Your task to perform on an android device: move a message to another label in the gmail app Image 0: 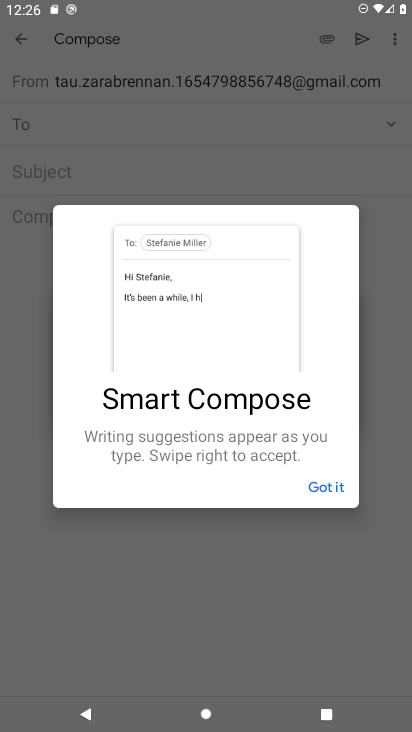
Step 0: press home button
Your task to perform on an android device: move a message to another label in the gmail app Image 1: 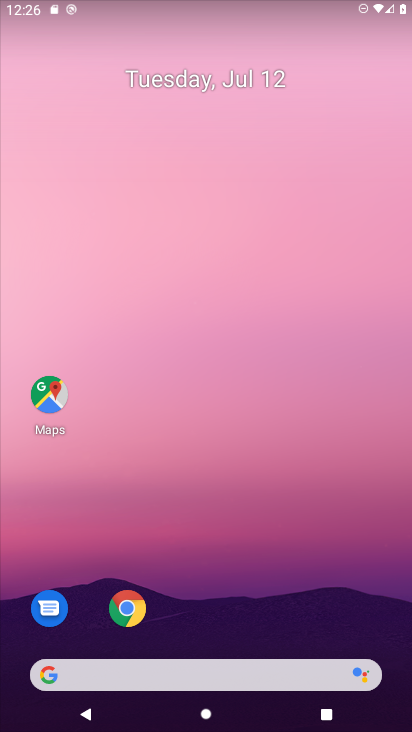
Step 1: drag from (215, 619) to (195, 134)
Your task to perform on an android device: move a message to another label in the gmail app Image 2: 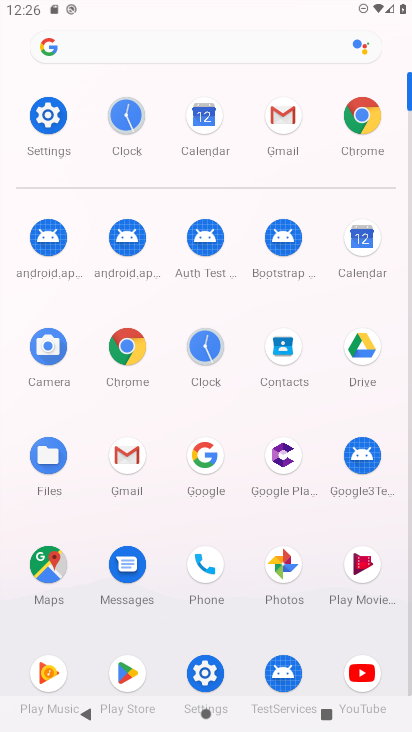
Step 2: click (137, 461)
Your task to perform on an android device: move a message to another label in the gmail app Image 3: 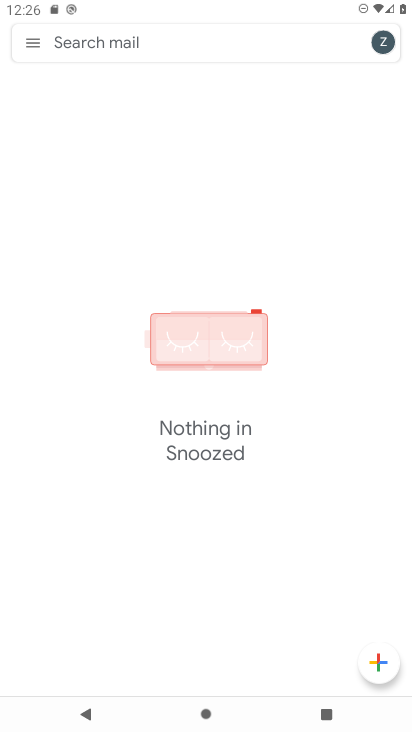
Step 3: click (26, 48)
Your task to perform on an android device: move a message to another label in the gmail app Image 4: 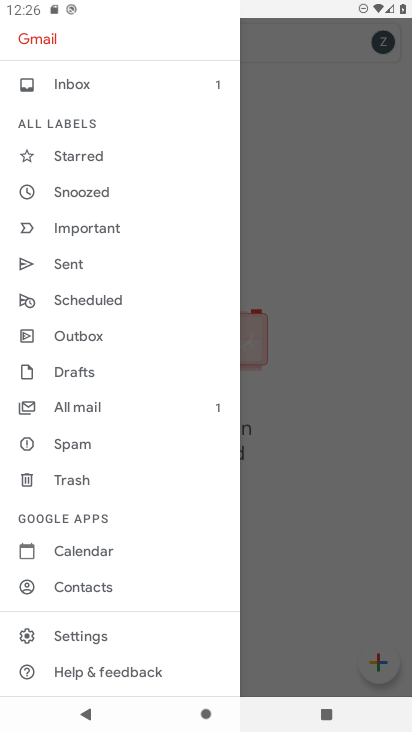
Step 4: click (71, 92)
Your task to perform on an android device: move a message to another label in the gmail app Image 5: 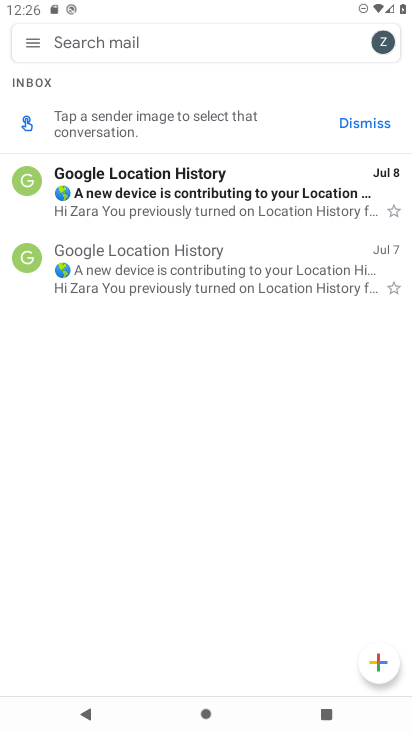
Step 5: click (206, 184)
Your task to perform on an android device: move a message to another label in the gmail app Image 6: 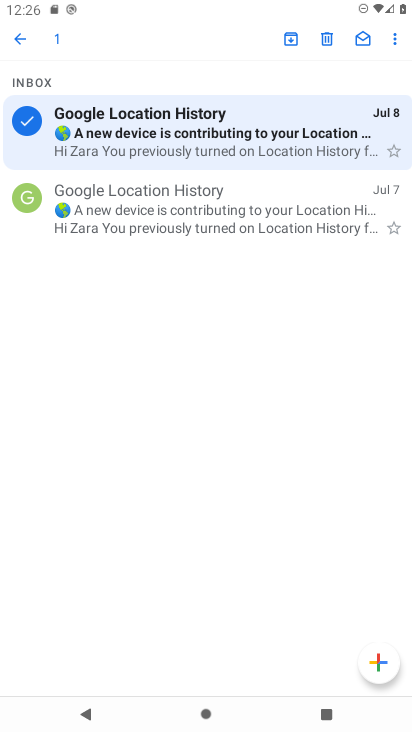
Step 6: click (393, 38)
Your task to perform on an android device: move a message to another label in the gmail app Image 7: 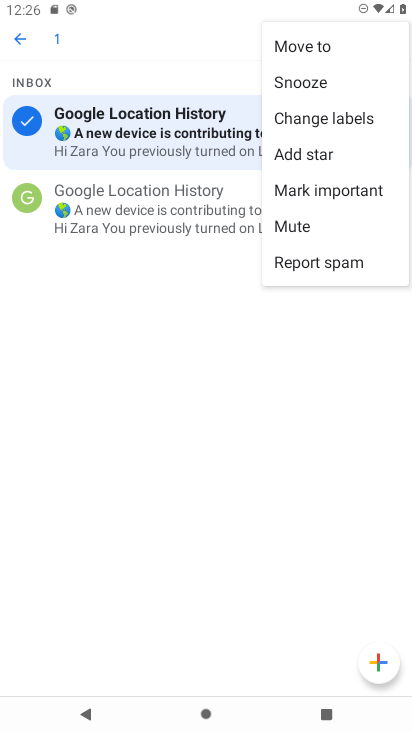
Step 7: click (317, 121)
Your task to perform on an android device: move a message to another label in the gmail app Image 8: 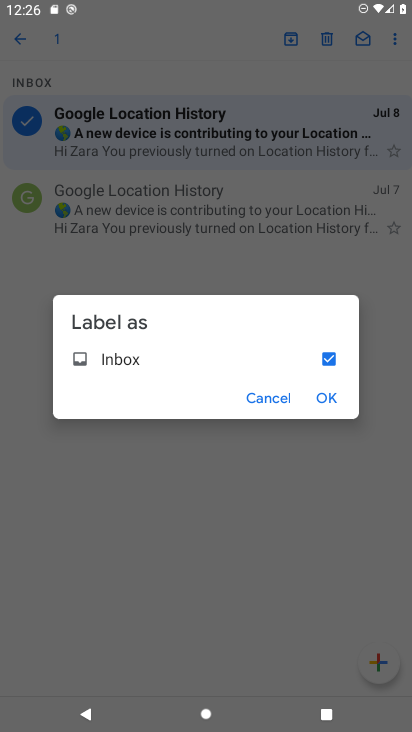
Step 8: click (329, 361)
Your task to perform on an android device: move a message to another label in the gmail app Image 9: 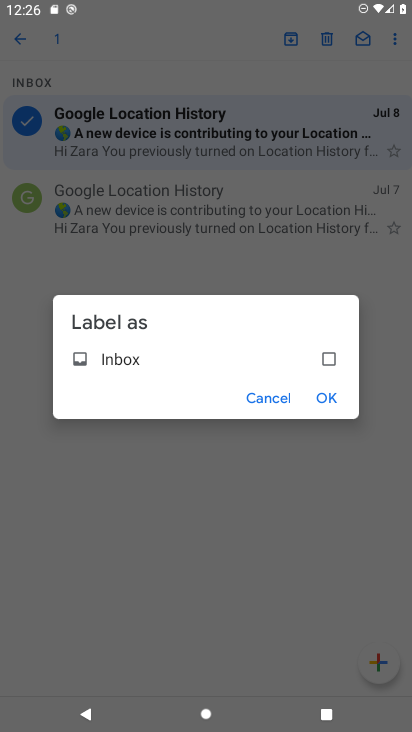
Step 9: click (328, 393)
Your task to perform on an android device: move a message to another label in the gmail app Image 10: 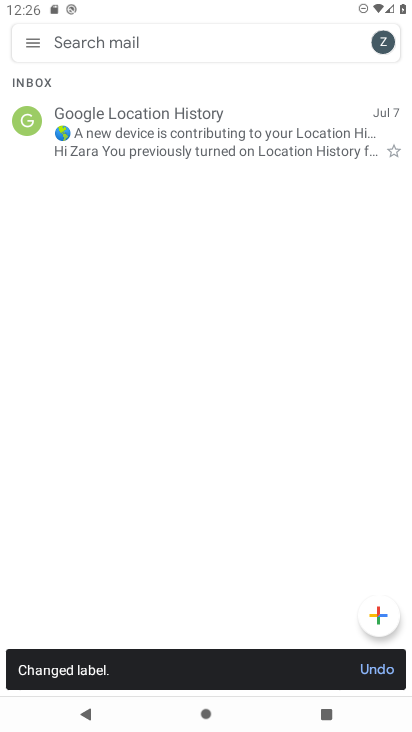
Step 10: task complete